Your task to perform on an android device: Open settings on Google Maps Image 0: 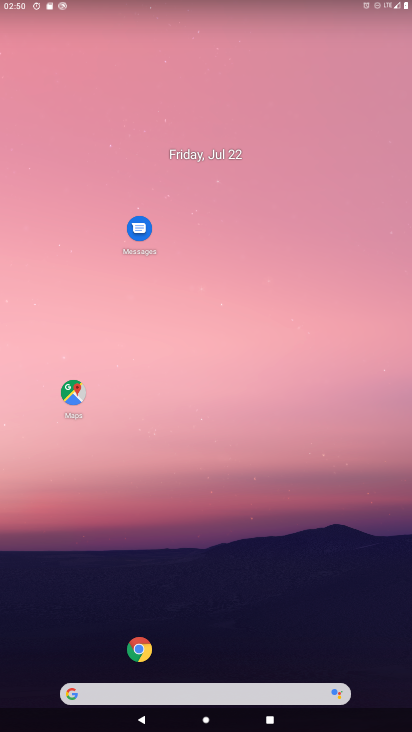
Step 0: click (79, 394)
Your task to perform on an android device: Open settings on Google Maps Image 1: 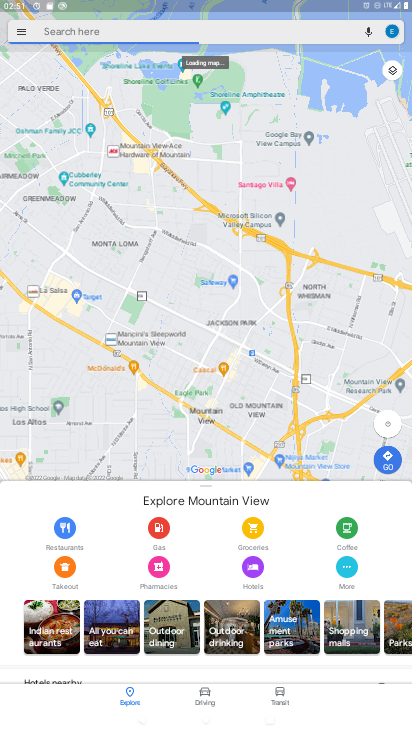
Step 1: task complete